Your task to perform on an android device: Open wifi settings Image 0: 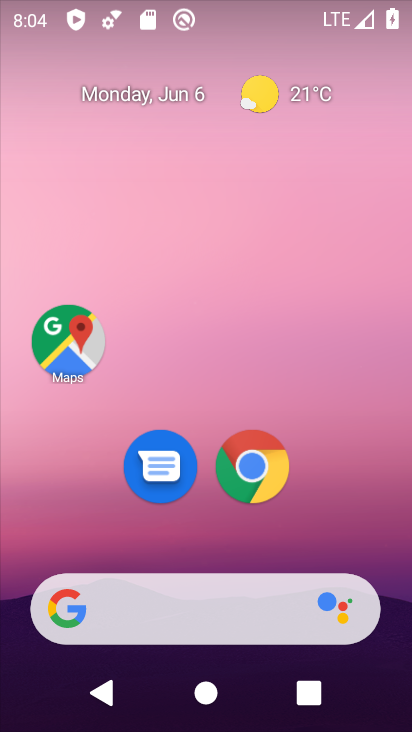
Step 0: drag from (226, 521) to (259, 212)
Your task to perform on an android device: Open wifi settings Image 1: 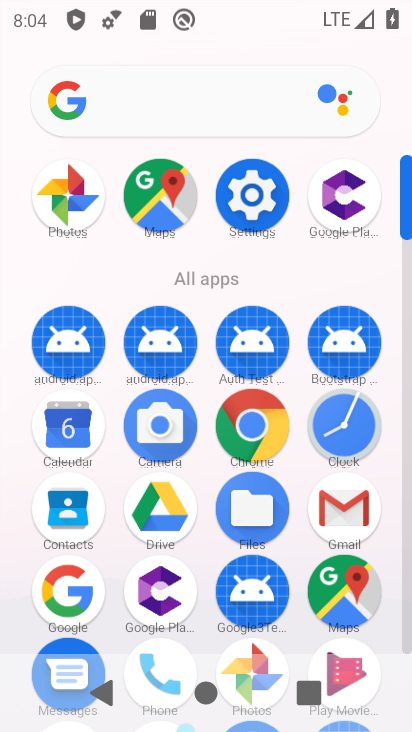
Step 1: click (242, 203)
Your task to perform on an android device: Open wifi settings Image 2: 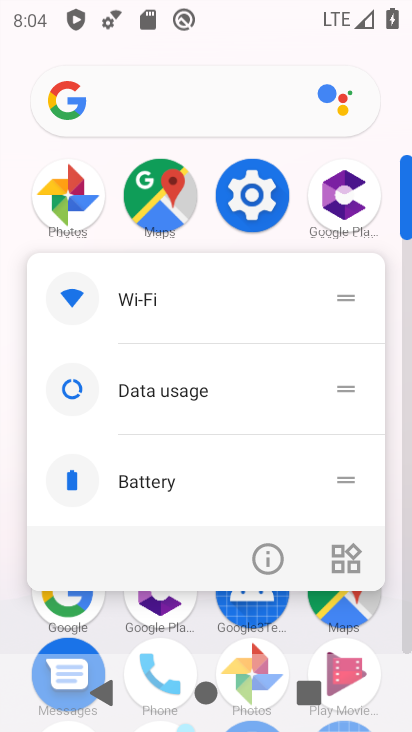
Step 2: click (192, 326)
Your task to perform on an android device: Open wifi settings Image 3: 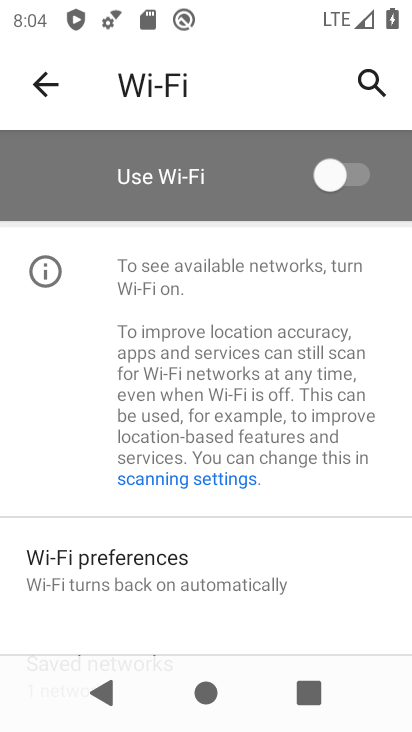
Step 3: click (305, 326)
Your task to perform on an android device: Open wifi settings Image 4: 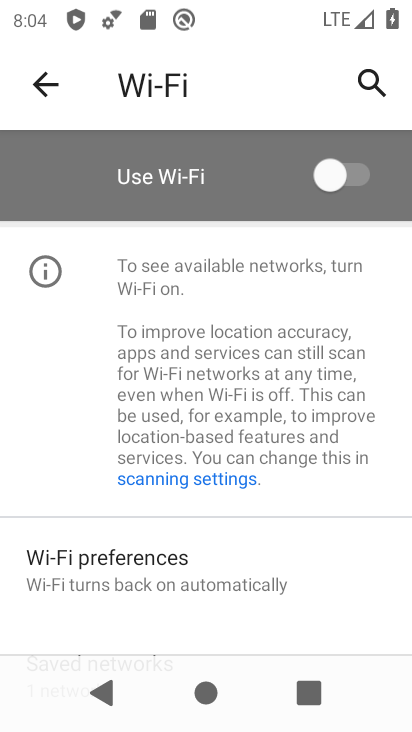
Step 4: task complete